Your task to perform on an android device: Open calendar and show me the first week of next month Image 0: 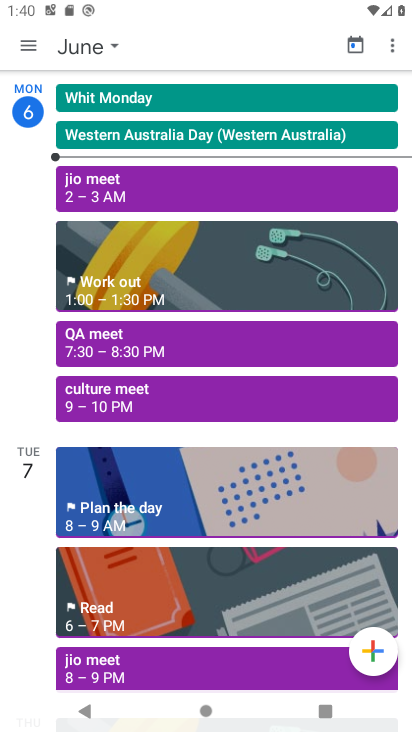
Step 0: press home button
Your task to perform on an android device: Open calendar and show me the first week of next month Image 1: 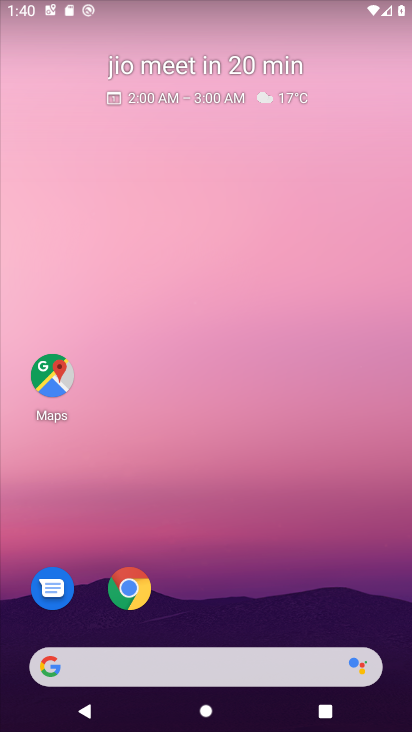
Step 1: drag from (129, 714) to (212, 77)
Your task to perform on an android device: Open calendar and show me the first week of next month Image 2: 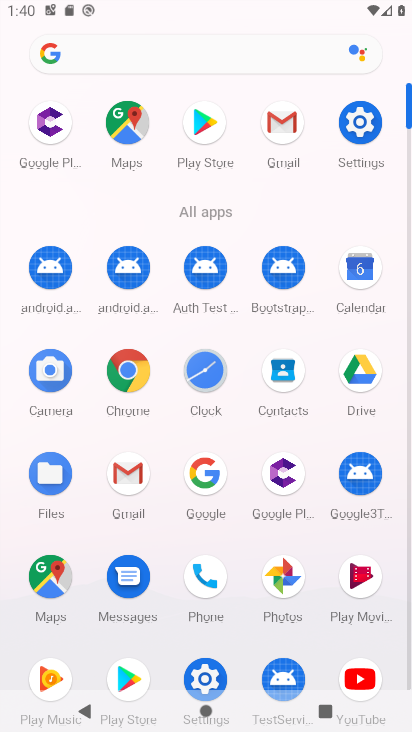
Step 2: click (357, 279)
Your task to perform on an android device: Open calendar and show me the first week of next month Image 3: 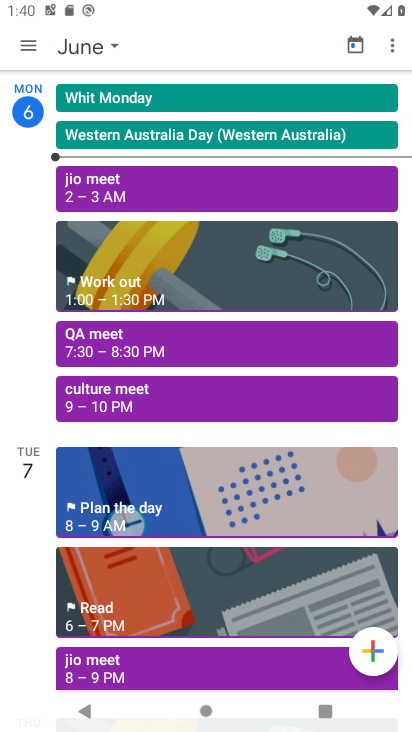
Step 3: click (81, 50)
Your task to perform on an android device: Open calendar and show me the first week of next month Image 4: 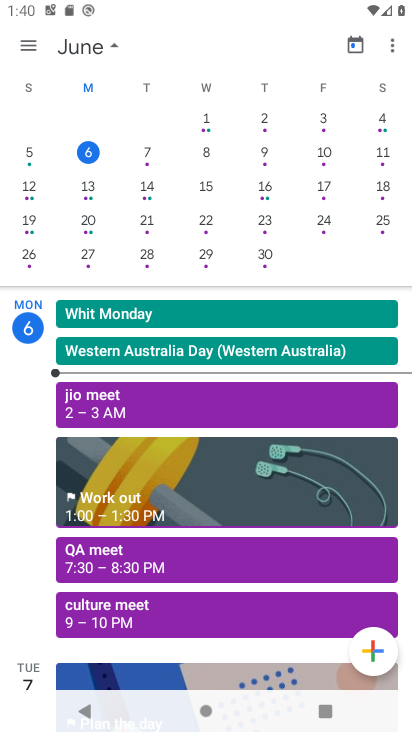
Step 4: task complete